Your task to perform on an android device: find which apps use the phone's location Image 0: 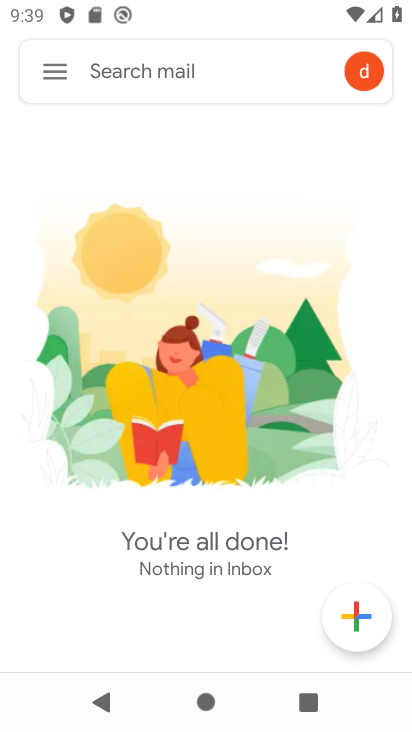
Step 0: press home button
Your task to perform on an android device: find which apps use the phone's location Image 1: 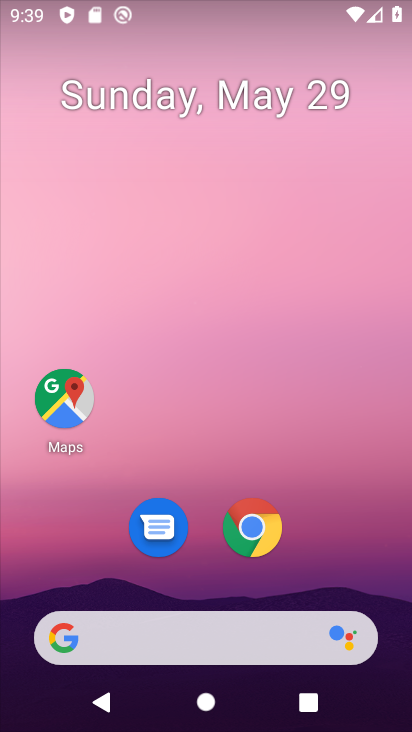
Step 1: drag from (336, 494) to (344, 56)
Your task to perform on an android device: find which apps use the phone's location Image 2: 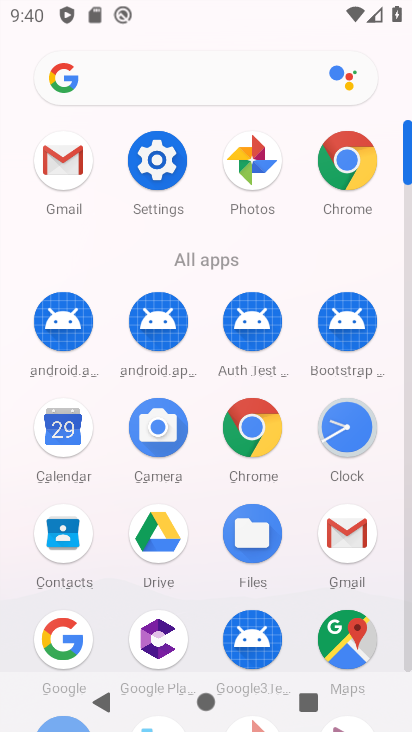
Step 2: click (137, 150)
Your task to perform on an android device: find which apps use the phone's location Image 3: 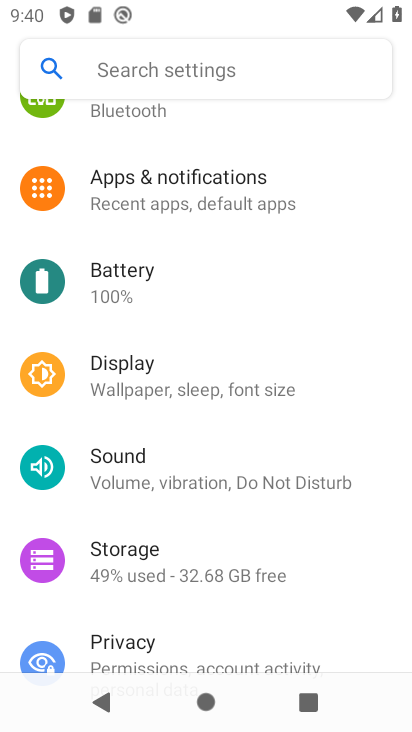
Step 3: drag from (180, 512) to (230, 85)
Your task to perform on an android device: find which apps use the phone's location Image 4: 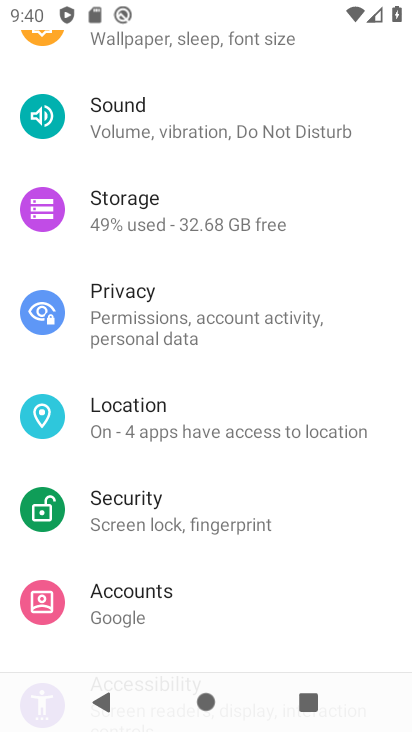
Step 4: click (230, 83)
Your task to perform on an android device: find which apps use the phone's location Image 5: 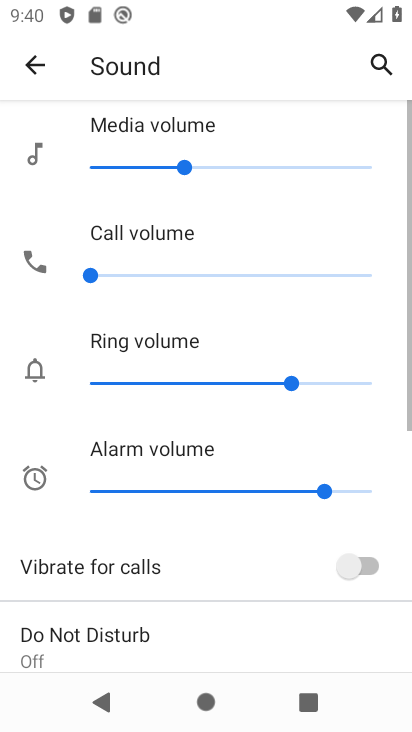
Step 5: click (31, 55)
Your task to perform on an android device: find which apps use the phone's location Image 6: 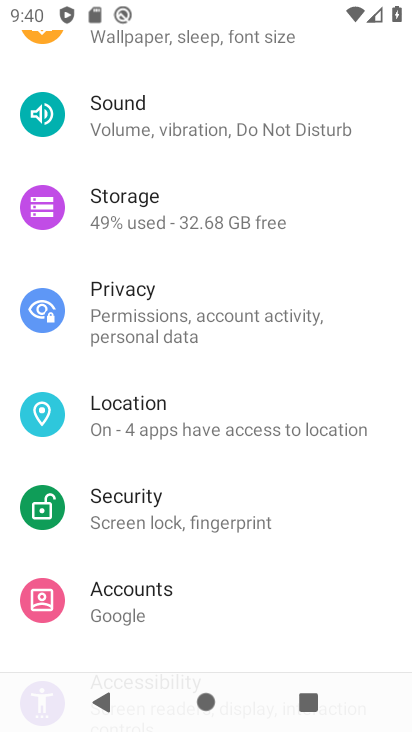
Step 6: click (162, 398)
Your task to perform on an android device: find which apps use the phone's location Image 7: 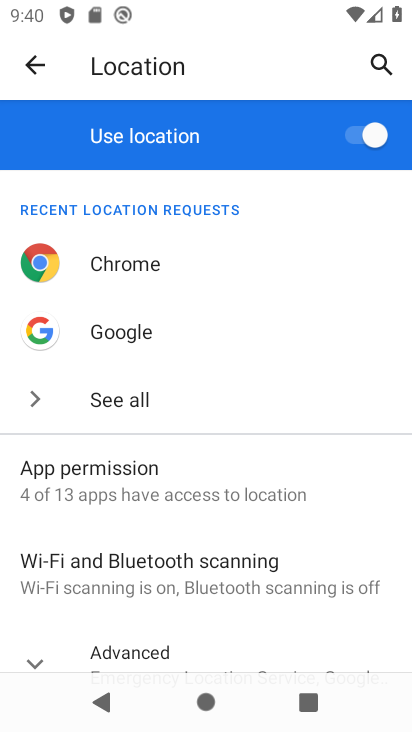
Step 7: click (180, 468)
Your task to perform on an android device: find which apps use the phone's location Image 8: 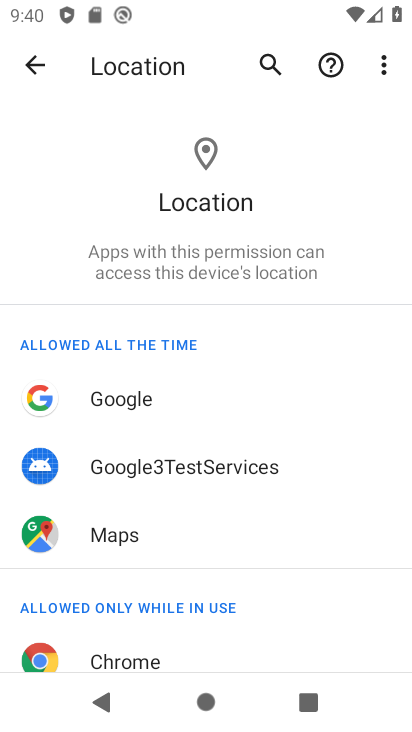
Step 8: task complete